Your task to perform on an android device: Go to calendar. Show me events next week Image 0: 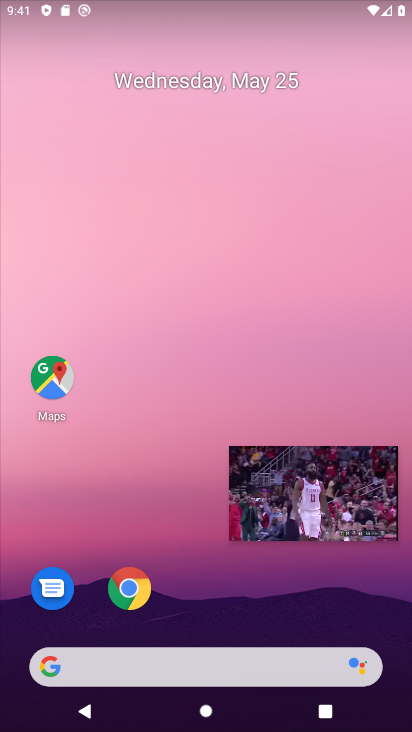
Step 0: drag from (216, 623) to (270, 189)
Your task to perform on an android device: Go to calendar. Show me events next week Image 1: 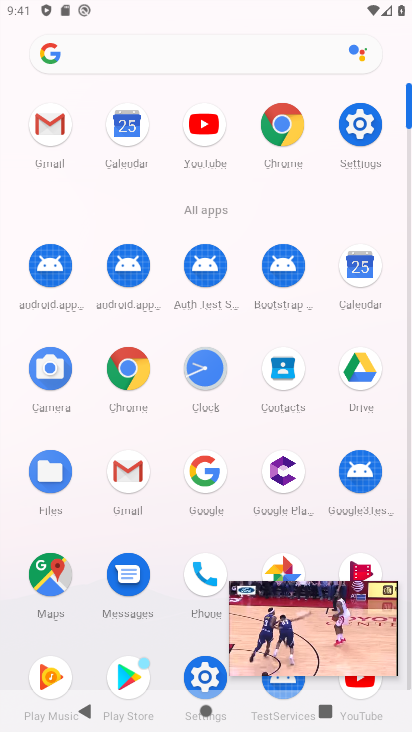
Step 1: click (357, 272)
Your task to perform on an android device: Go to calendar. Show me events next week Image 2: 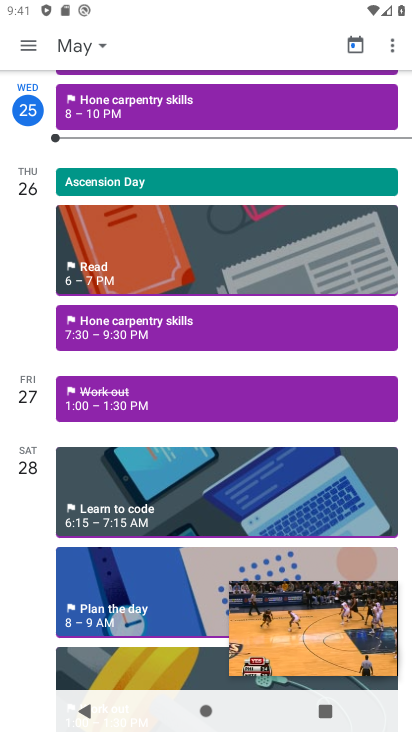
Step 2: click (80, 43)
Your task to perform on an android device: Go to calendar. Show me events next week Image 3: 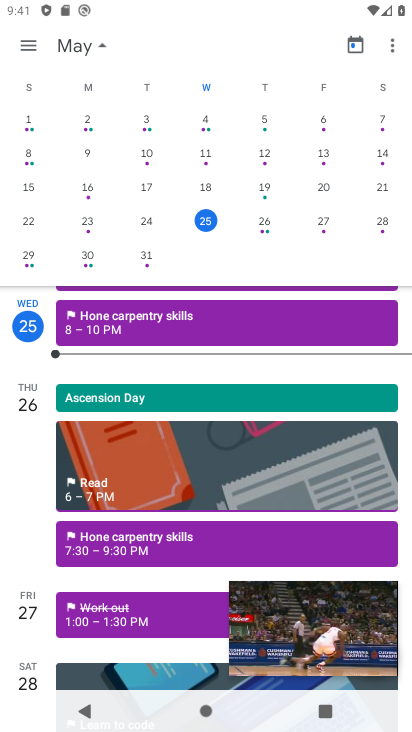
Step 3: click (33, 254)
Your task to perform on an android device: Go to calendar. Show me events next week Image 4: 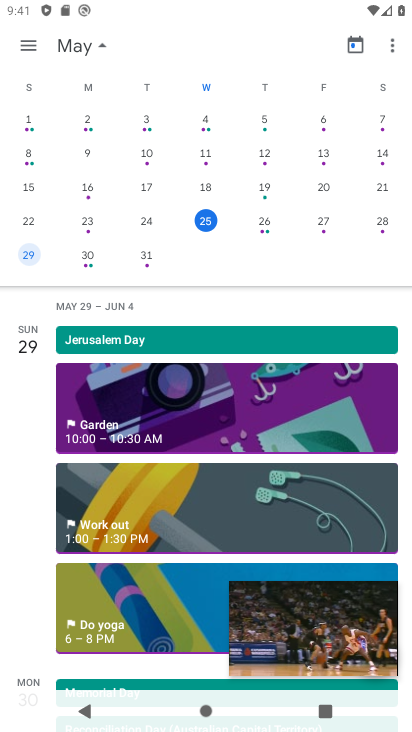
Step 4: click (89, 265)
Your task to perform on an android device: Go to calendar. Show me events next week Image 5: 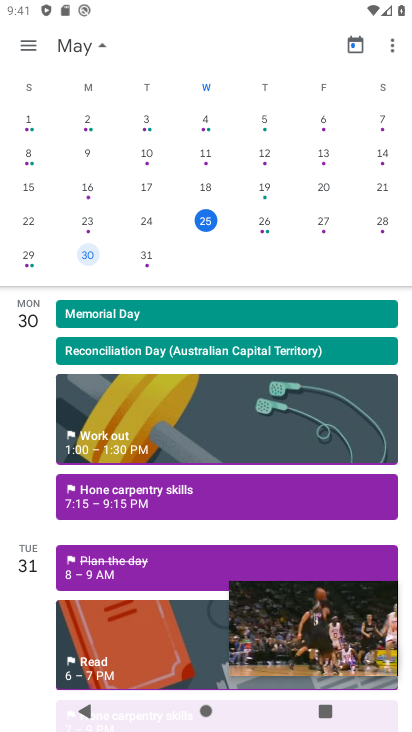
Step 5: click (143, 260)
Your task to perform on an android device: Go to calendar. Show me events next week Image 6: 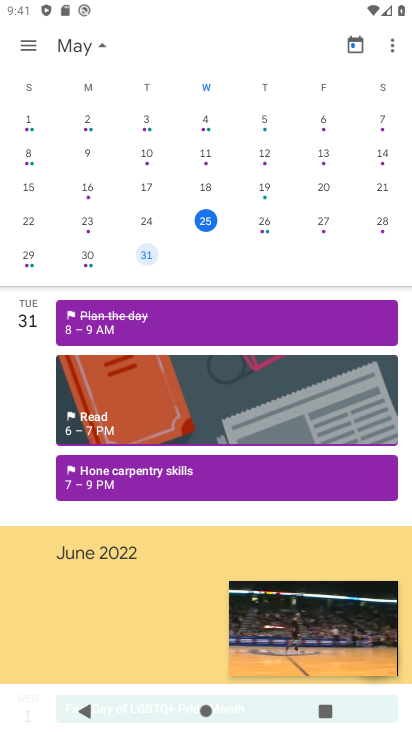
Step 6: task complete